Your task to perform on an android device: What's the weather? Image 0: 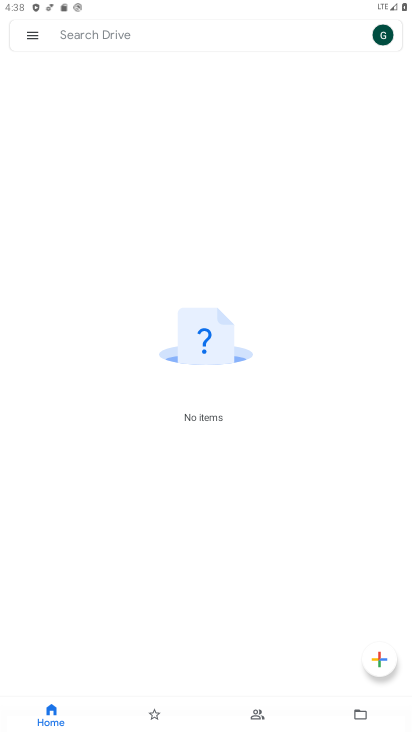
Step 0: press home button
Your task to perform on an android device: What's the weather? Image 1: 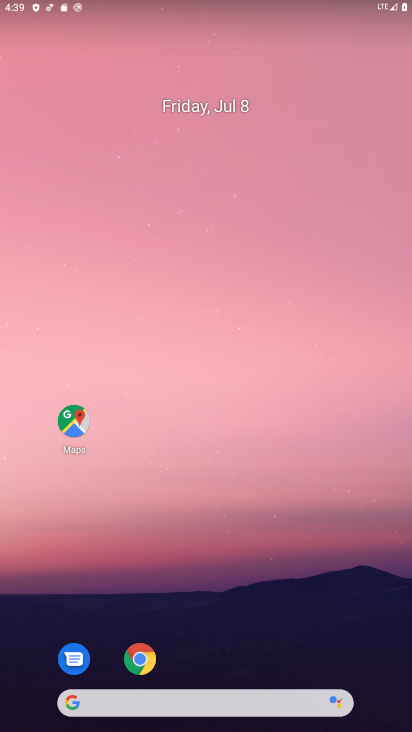
Step 1: click (159, 664)
Your task to perform on an android device: What's the weather? Image 2: 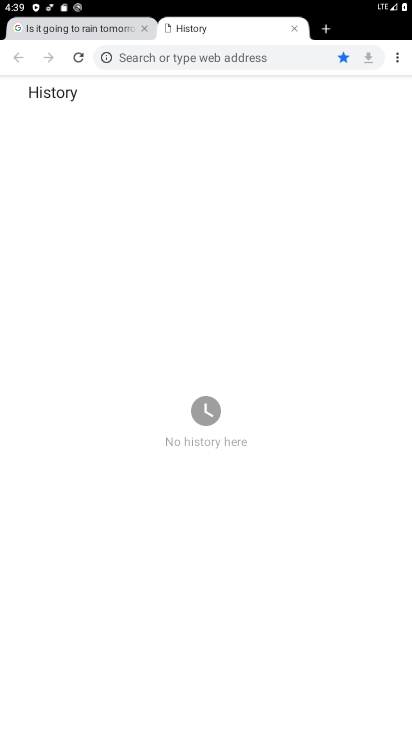
Step 2: click (203, 58)
Your task to perform on an android device: What's the weather? Image 3: 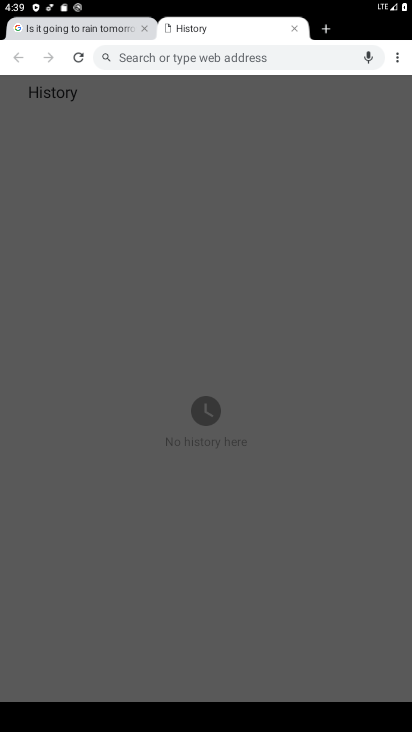
Step 3: type "What's the weather?"
Your task to perform on an android device: What's the weather? Image 4: 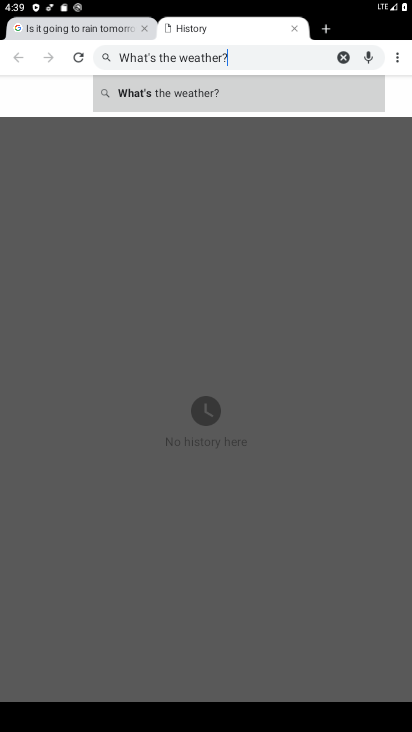
Step 4: type ""
Your task to perform on an android device: What's the weather? Image 5: 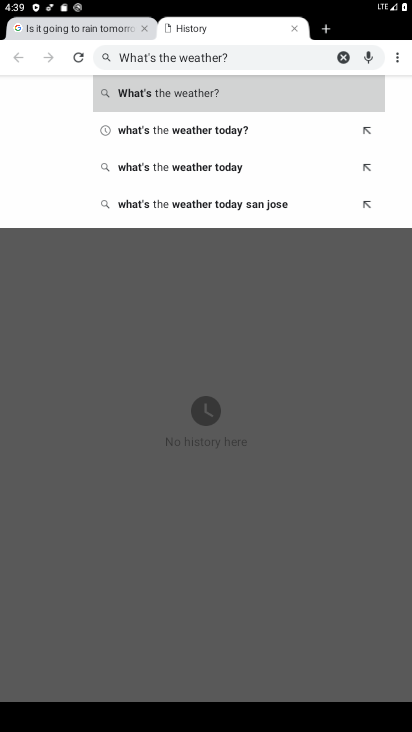
Step 5: click (119, 102)
Your task to perform on an android device: What's the weather? Image 6: 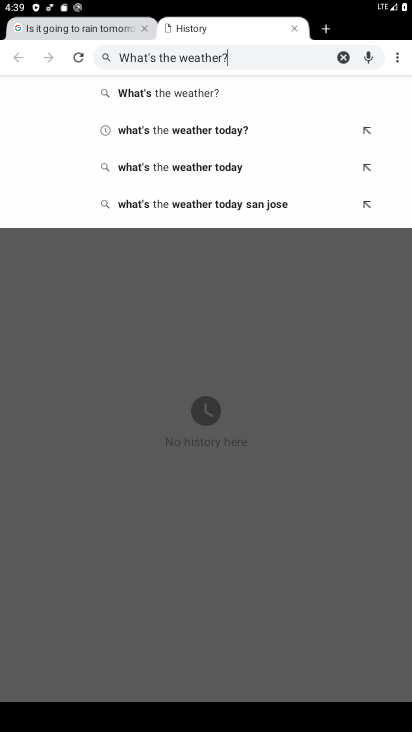
Step 6: click (240, 87)
Your task to perform on an android device: What's the weather? Image 7: 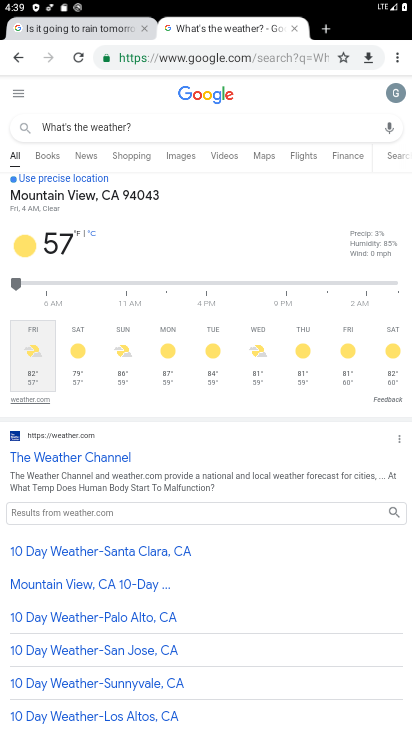
Step 7: task complete